Your task to perform on an android device: Search for Italian restaurants on Maps Image 0: 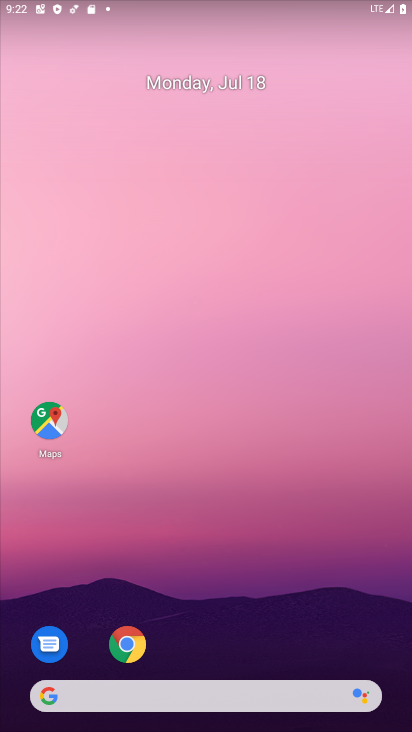
Step 0: drag from (179, 657) to (407, 361)
Your task to perform on an android device: Search for Italian restaurants on Maps Image 1: 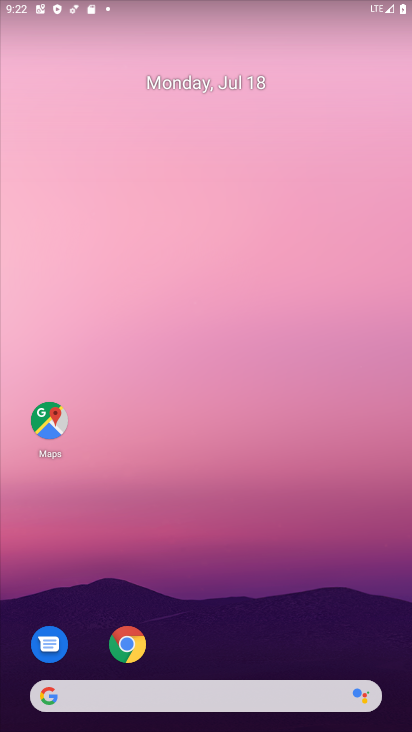
Step 1: drag from (200, 672) to (266, 29)
Your task to perform on an android device: Search for Italian restaurants on Maps Image 2: 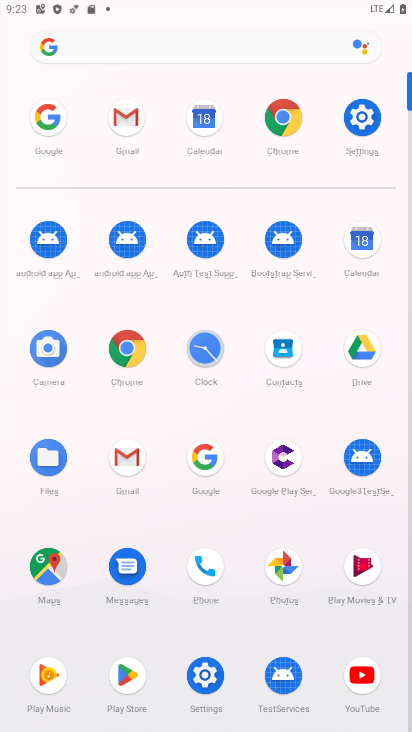
Step 2: click (46, 580)
Your task to perform on an android device: Search for Italian restaurants on Maps Image 3: 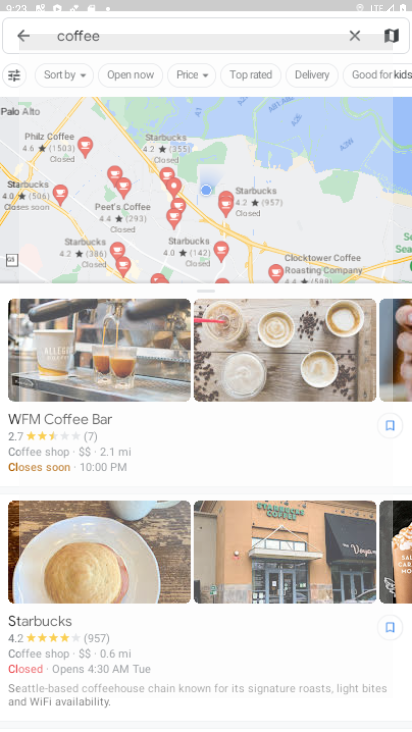
Step 3: click (345, 43)
Your task to perform on an android device: Search for Italian restaurants on Maps Image 4: 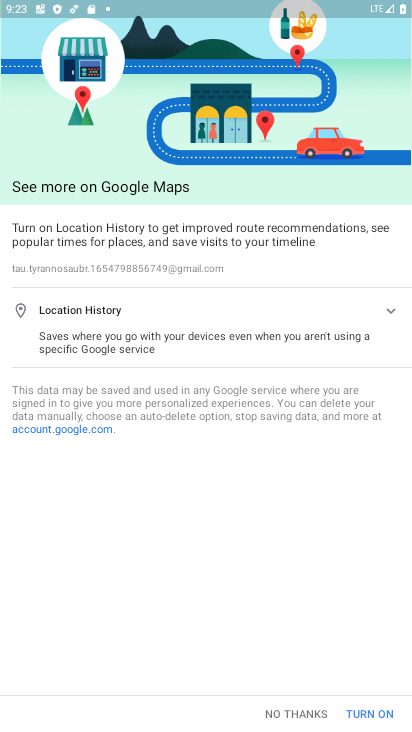
Step 4: click (366, 714)
Your task to perform on an android device: Search for Italian restaurants on Maps Image 5: 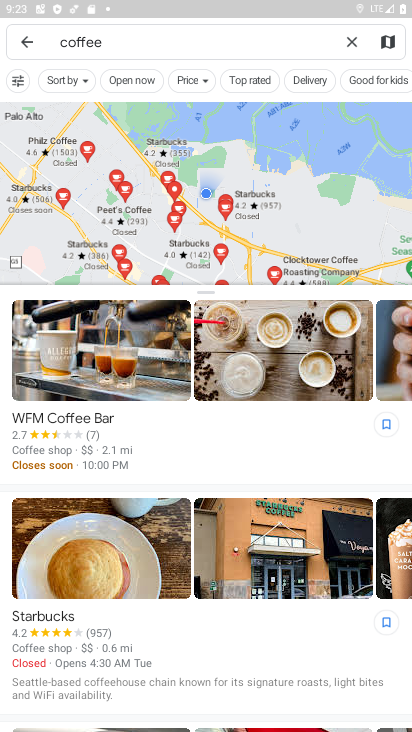
Step 5: click (351, 37)
Your task to perform on an android device: Search for Italian restaurants on Maps Image 6: 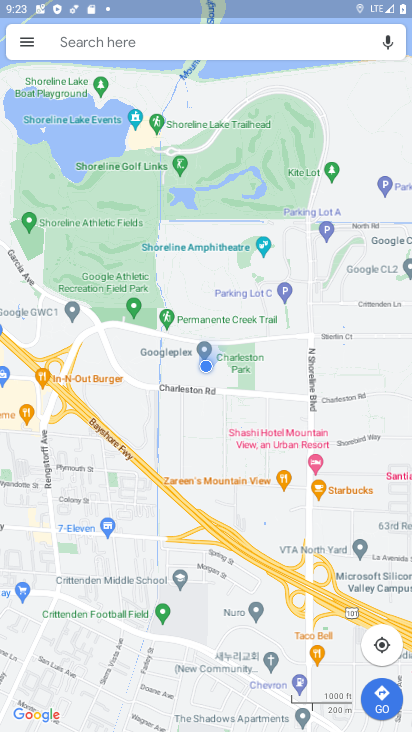
Step 6: click (134, 42)
Your task to perform on an android device: Search for Italian restaurants on Maps Image 7: 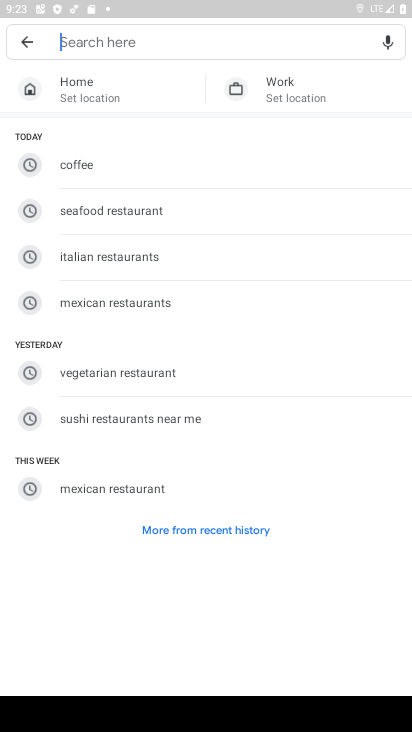
Step 7: click (76, 257)
Your task to perform on an android device: Search for Italian restaurants on Maps Image 8: 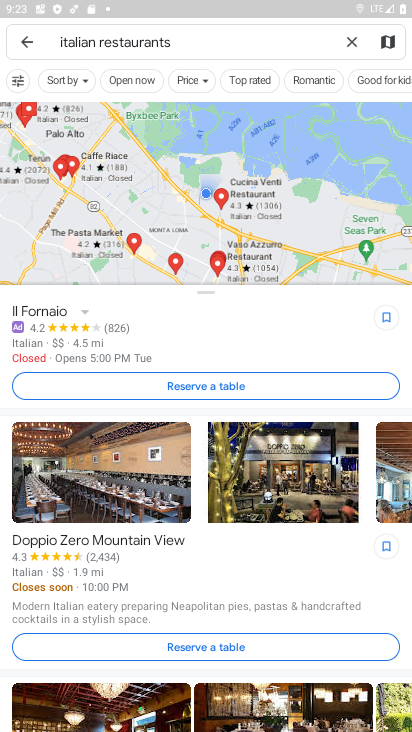
Step 8: task complete